Your task to perform on an android device: Open Youtube and go to the subscriptions tab Image 0: 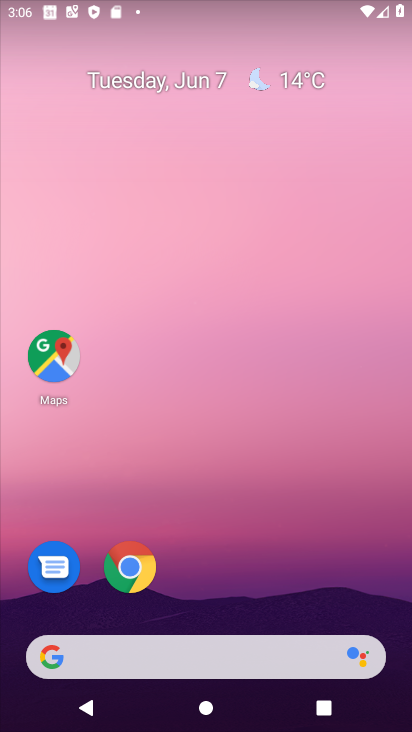
Step 0: drag from (203, 501) to (204, 276)
Your task to perform on an android device: Open Youtube and go to the subscriptions tab Image 1: 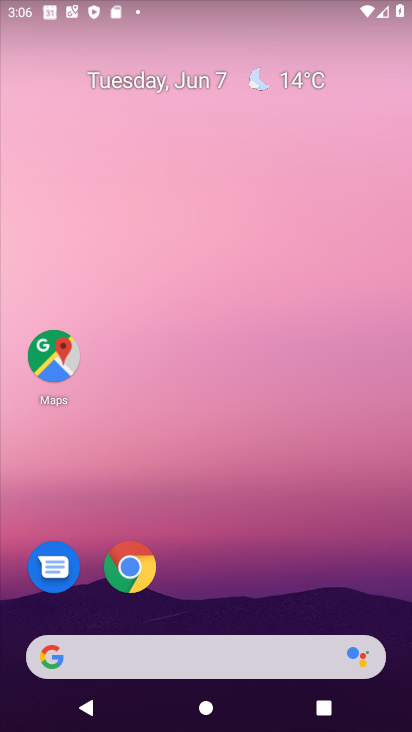
Step 1: drag from (240, 606) to (247, 253)
Your task to perform on an android device: Open Youtube and go to the subscriptions tab Image 2: 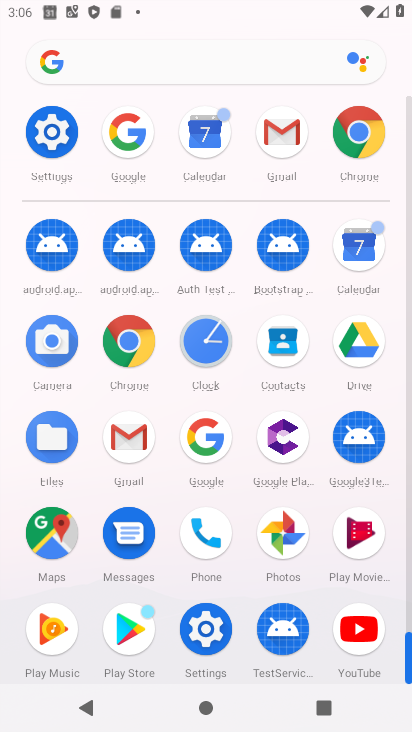
Step 2: click (343, 621)
Your task to perform on an android device: Open Youtube and go to the subscriptions tab Image 3: 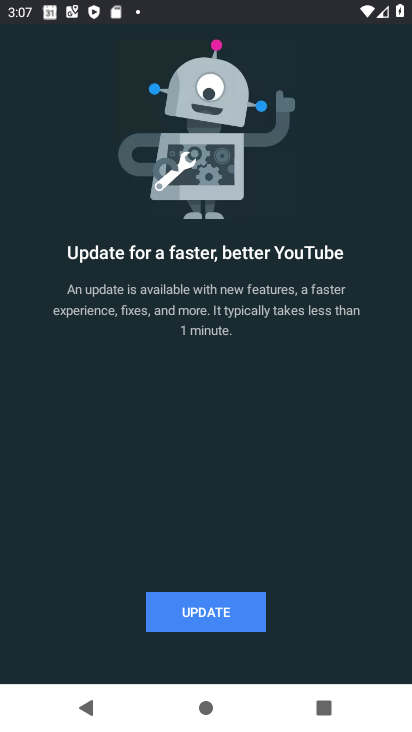
Step 3: click (238, 621)
Your task to perform on an android device: Open Youtube and go to the subscriptions tab Image 4: 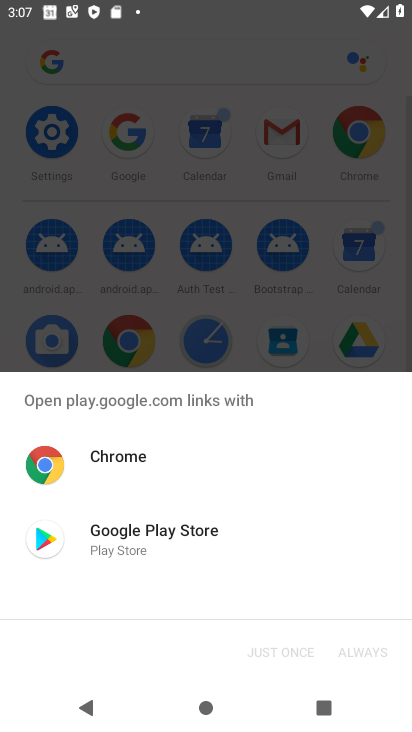
Step 4: click (159, 544)
Your task to perform on an android device: Open Youtube and go to the subscriptions tab Image 5: 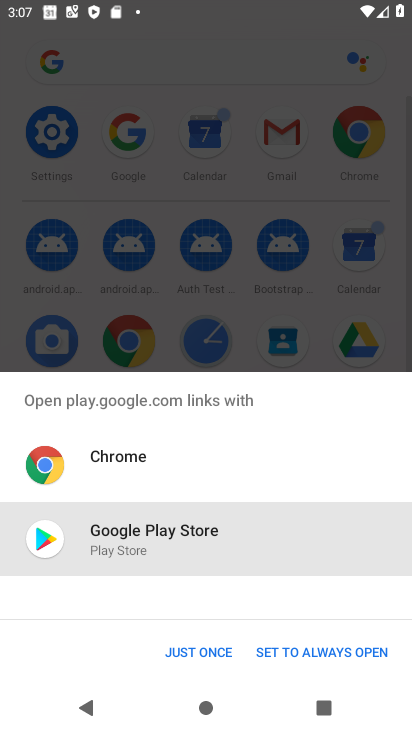
Step 5: click (219, 646)
Your task to perform on an android device: Open Youtube and go to the subscriptions tab Image 6: 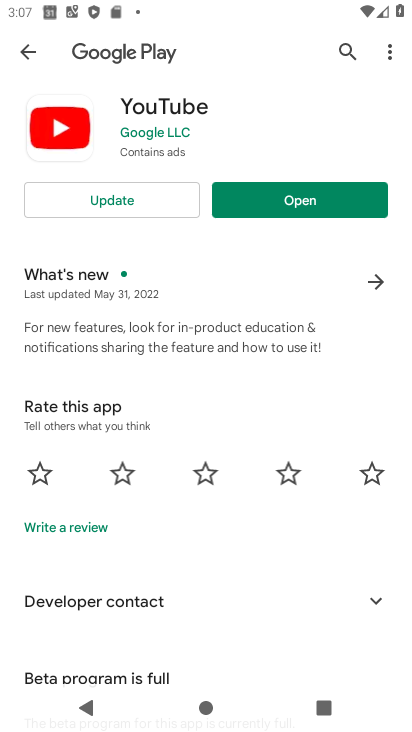
Step 6: click (175, 202)
Your task to perform on an android device: Open Youtube and go to the subscriptions tab Image 7: 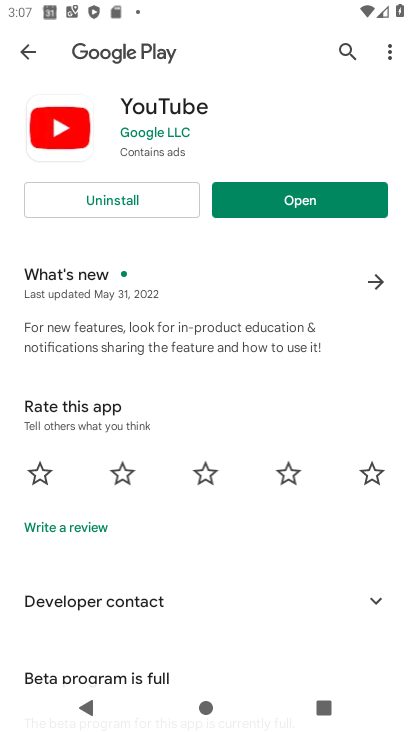
Step 7: click (302, 202)
Your task to perform on an android device: Open Youtube and go to the subscriptions tab Image 8: 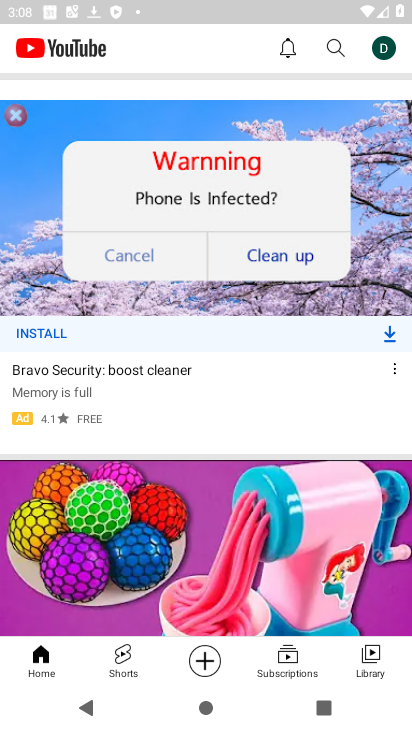
Step 8: click (281, 650)
Your task to perform on an android device: Open Youtube and go to the subscriptions tab Image 9: 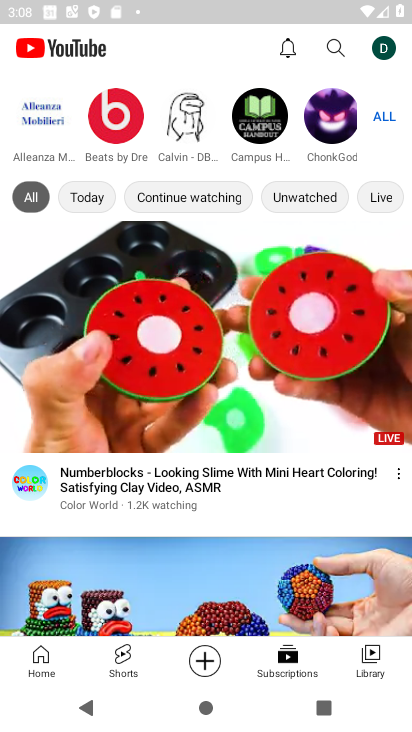
Step 9: task complete